Your task to perform on an android device: Open location settings Image 0: 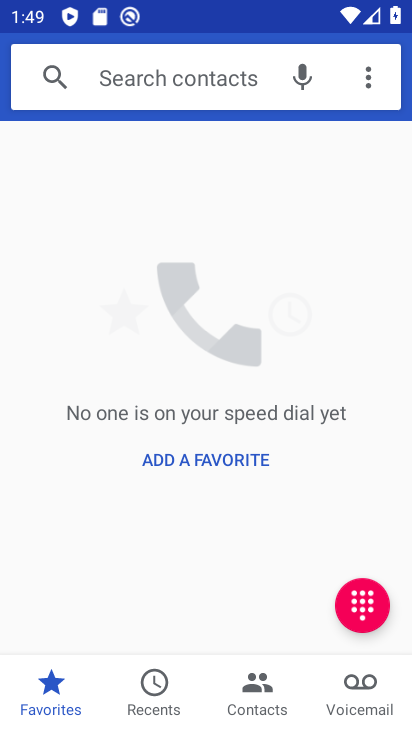
Step 0: press home button
Your task to perform on an android device: Open location settings Image 1: 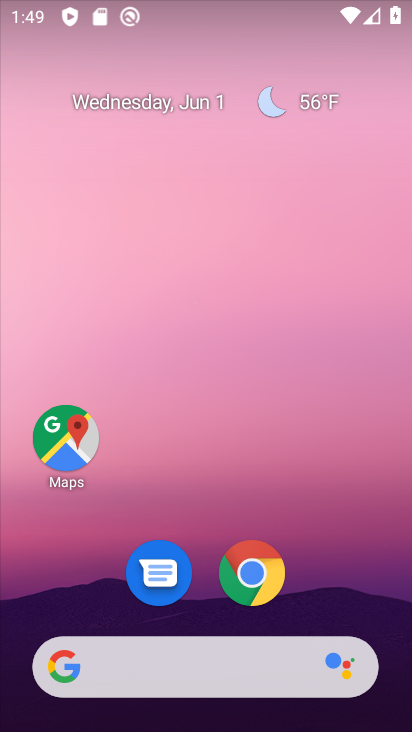
Step 1: drag from (303, 572) to (232, 6)
Your task to perform on an android device: Open location settings Image 2: 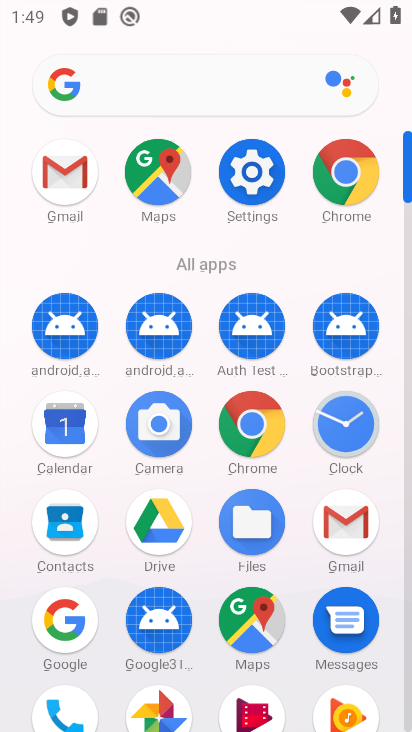
Step 2: click (268, 218)
Your task to perform on an android device: Open location settings Image 3: 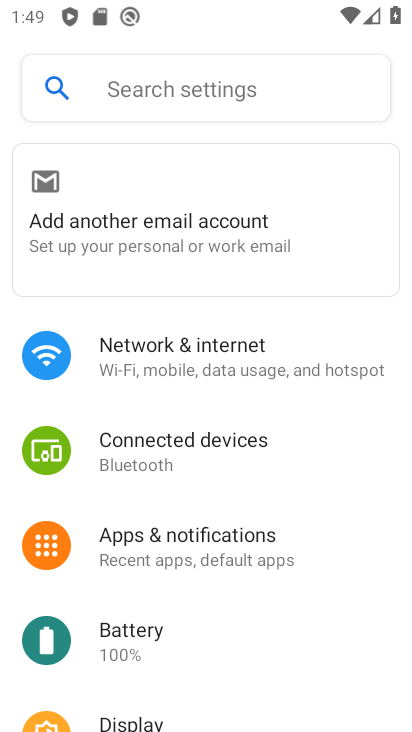
Step 3: drag from (289, 603) to (223, 215)
Your task to perform on an android device: Open location settings Image 4: 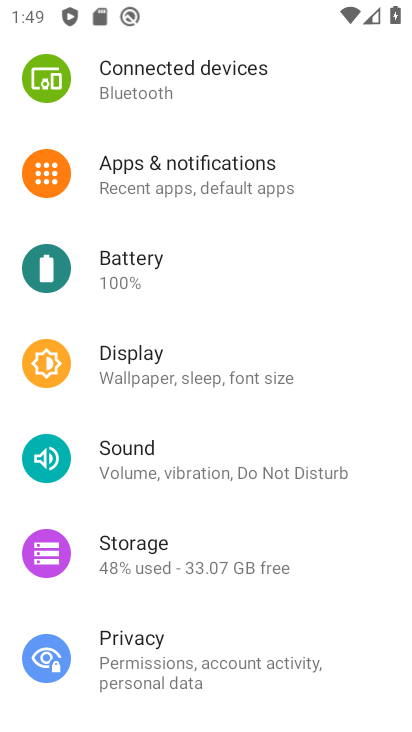
Step 4: drag from (200, 605) to (162, 229)
Your task to perform on an android device: Open location settings Image 5: 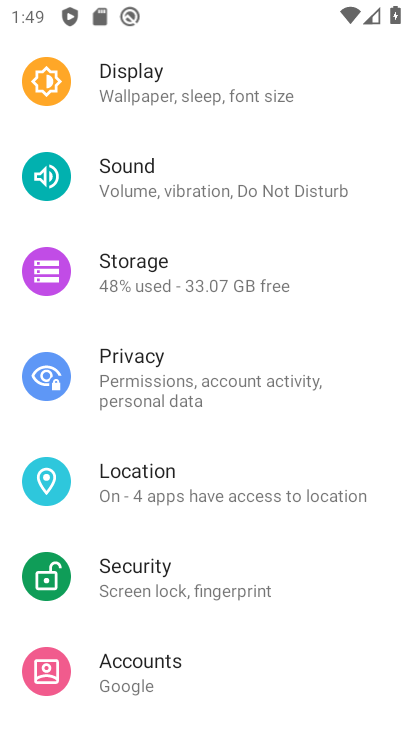
Step 5: click (152, 486)
Your task to perform on an android device: Open location settings Image 6: 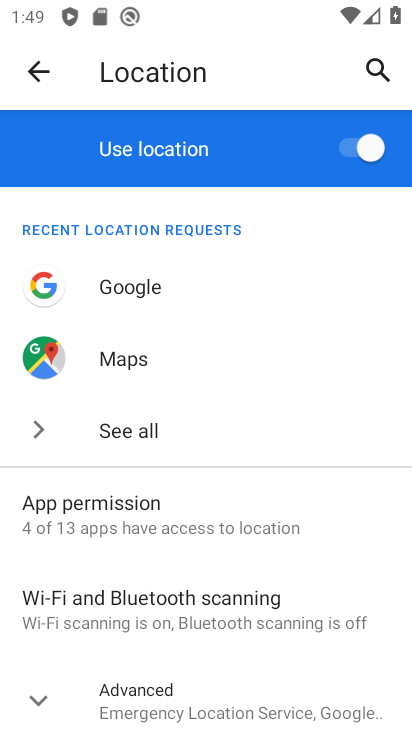
Step 6: task complete